Your task to perform on an android device: Go to settings Image 0: 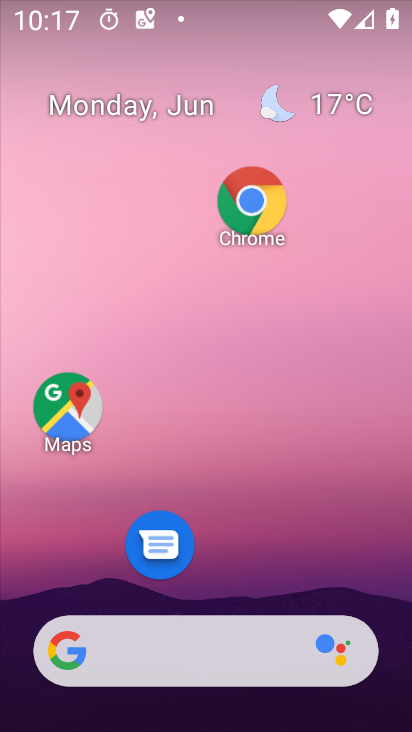
Step 0: drag from (260, 595) to (141, 60)
Your task to perform on an android device: Go to settings Image 1: 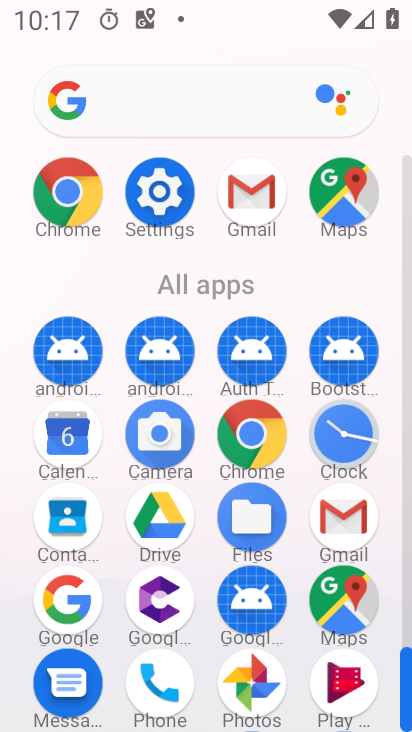
Step 1: click (149, 170)
Your task to perform on an android device: Go to settings Image 2: 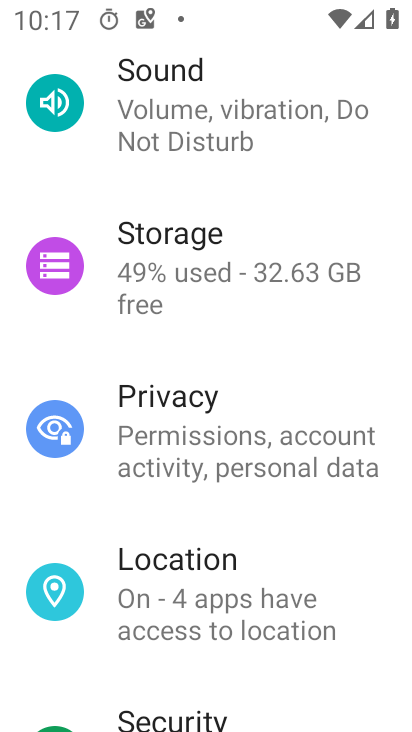
Step 2: task complete